Your task to perform on an android device: Go to Android settings Image 0: 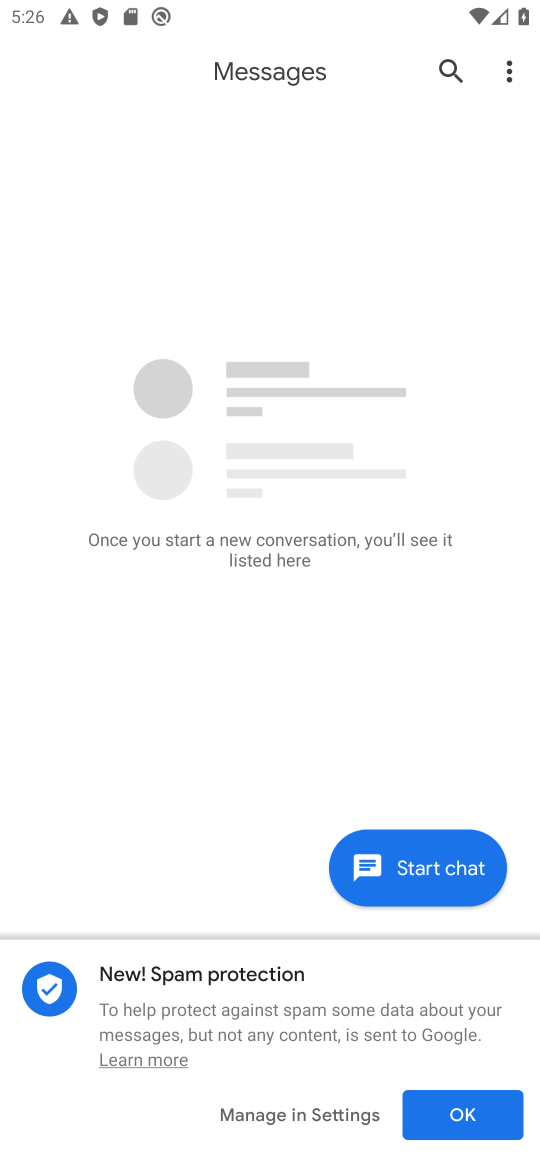
Step 0: press home button
Your task to perform on an android device: Go to Android settings Image 1: 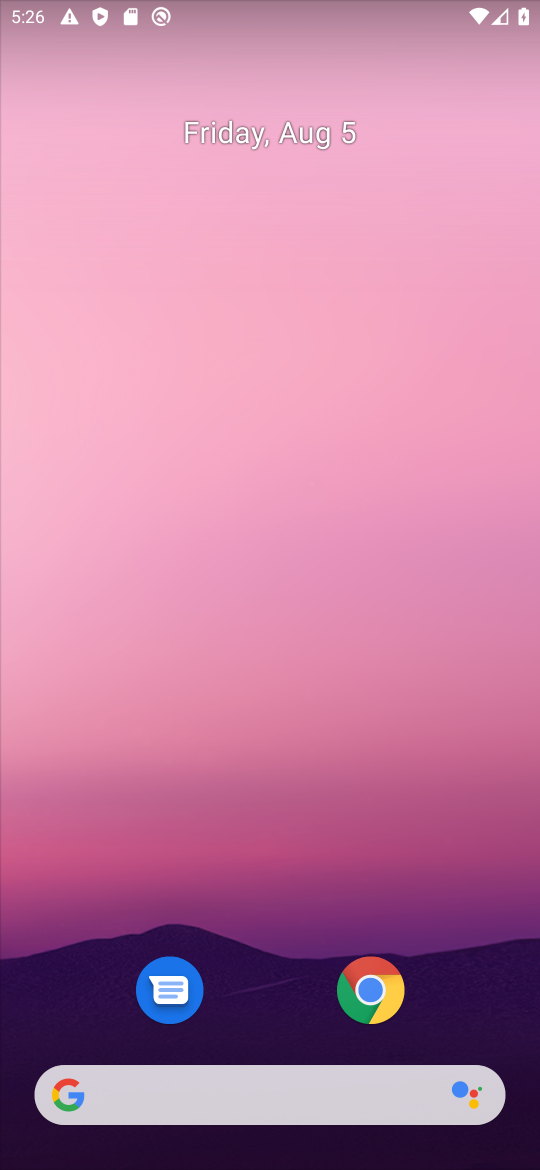
Step 1: drag from (239, 1031) to (168, 479)
Your task to perform on an android device: Go to Android settings Image 2: 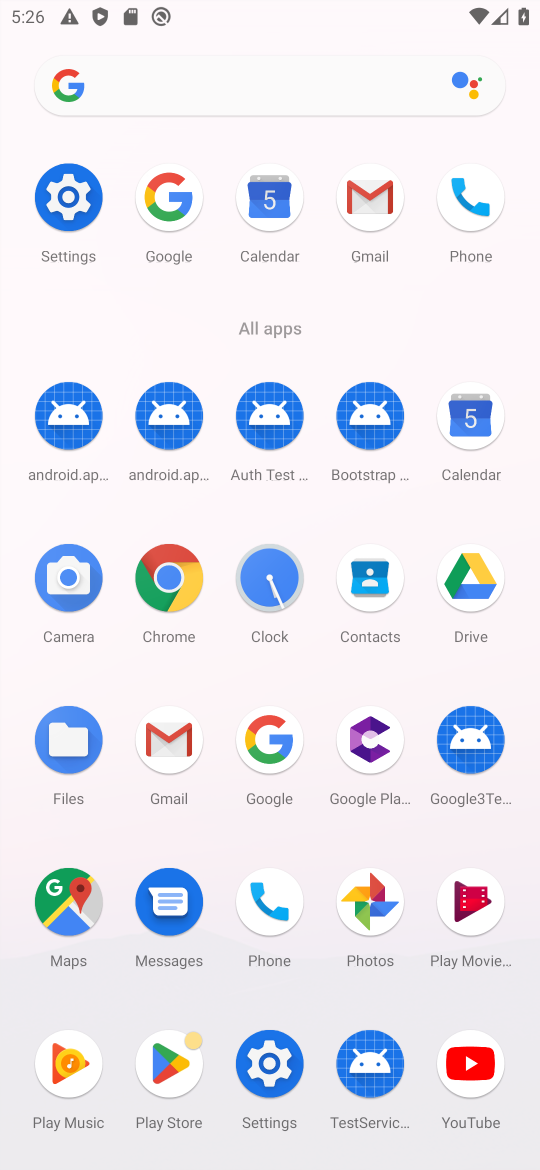
Step 2: click (71, 199)
Your task to perform on an android device: Go to Android settings Image 3: 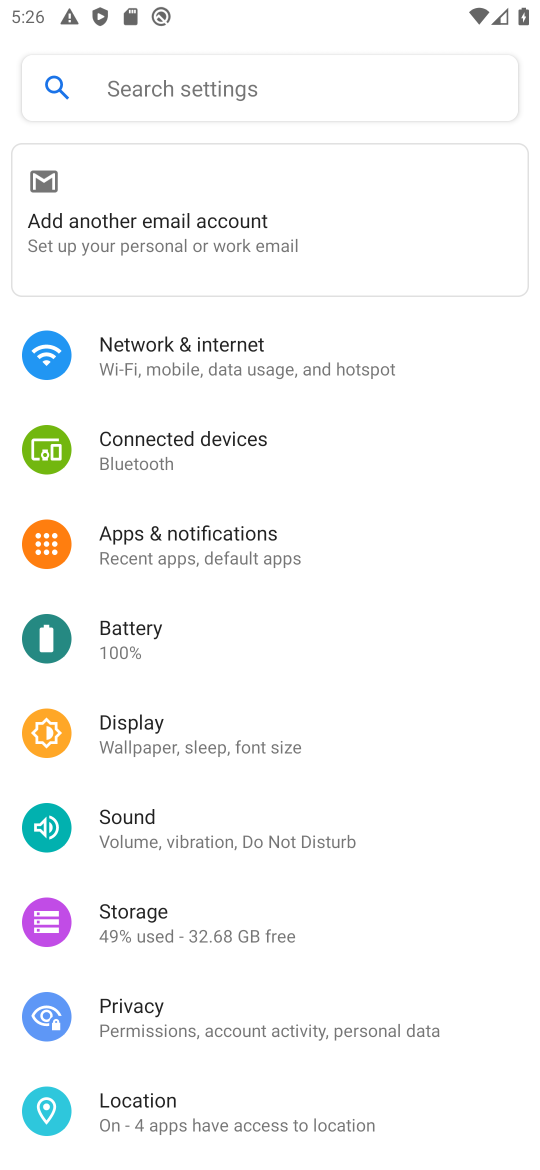
Step 3: task complete